Your task to perform on an android device: turn off sleep mode Image 0: 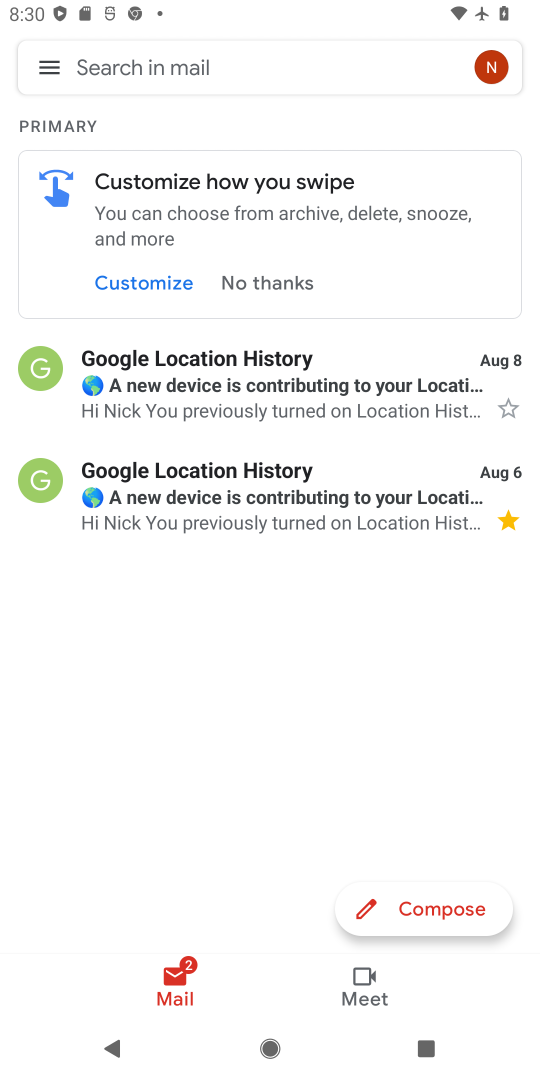
Step 0: press home button
Your task to perform on an android device: turn off sleep mode Image 1: 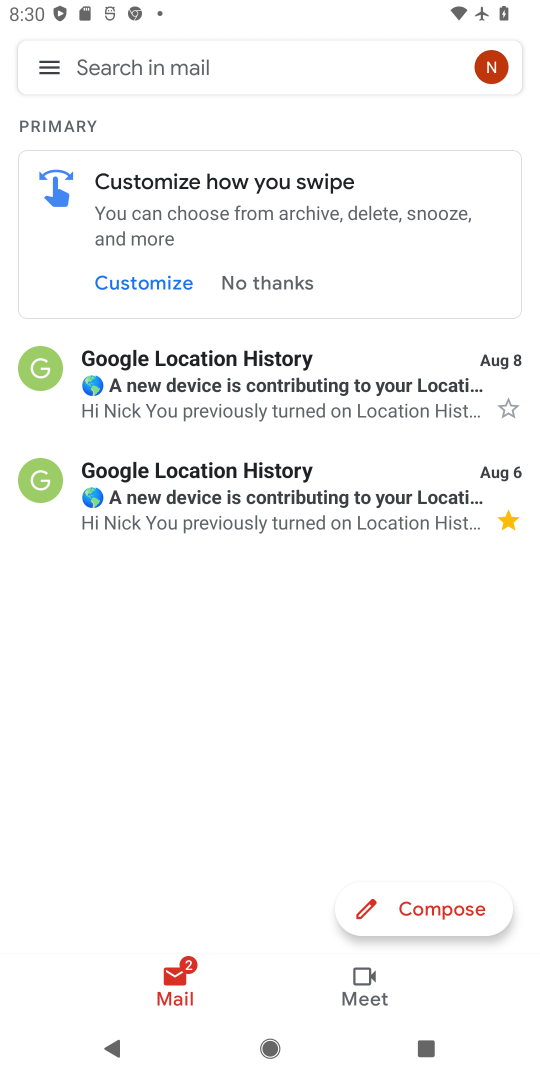
Step 1: press home button
Your task to perform on an android device: turn off sleep mode Image 2: 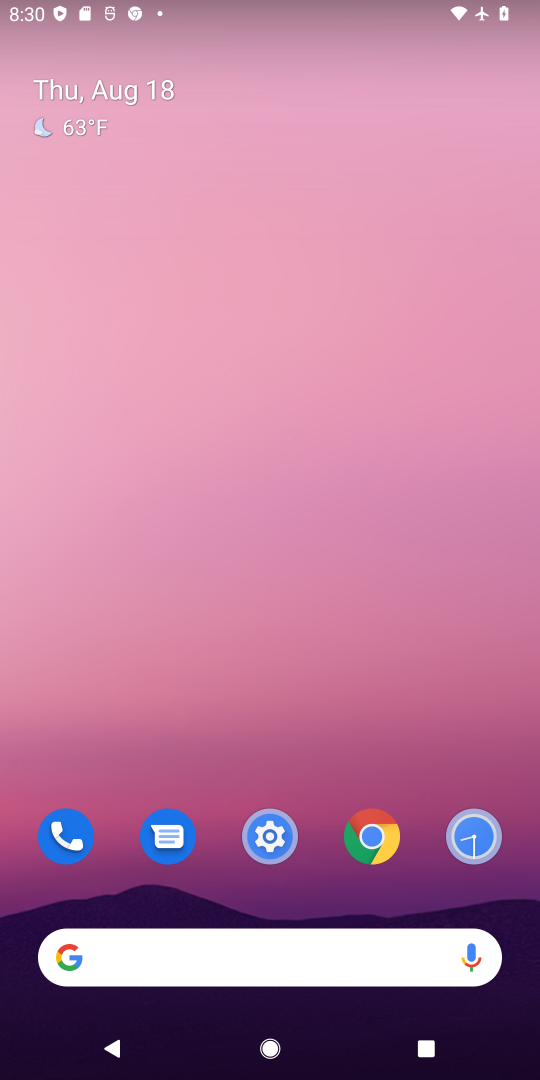
Step 2: drag from (325, 739) to (352, 12)
Your task to perform on an android device: turn off sleep mode Image 3: 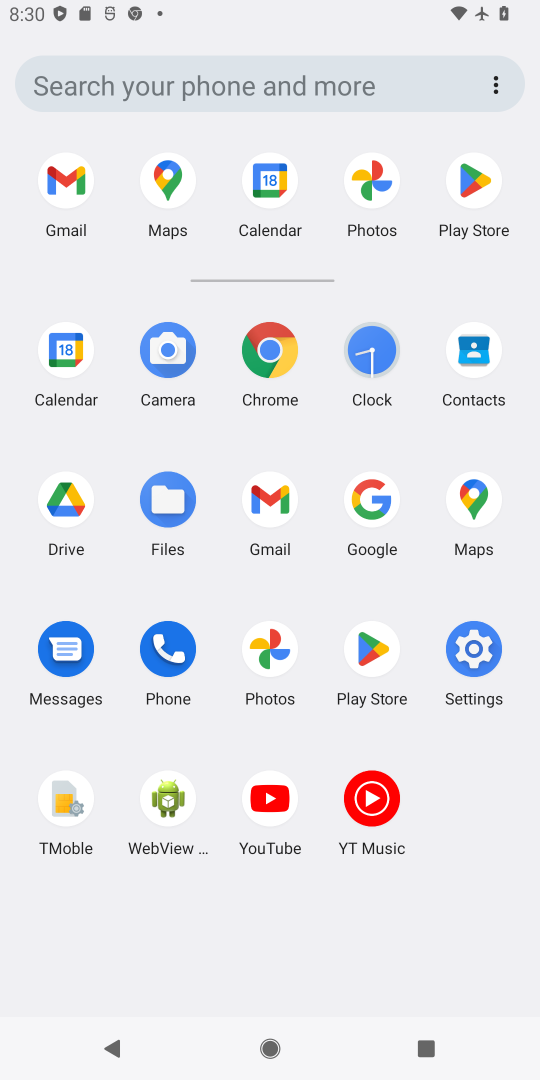
Step 3: click (477, 659)
Your task to perform on an android device: turn off sleep mode Image 4: 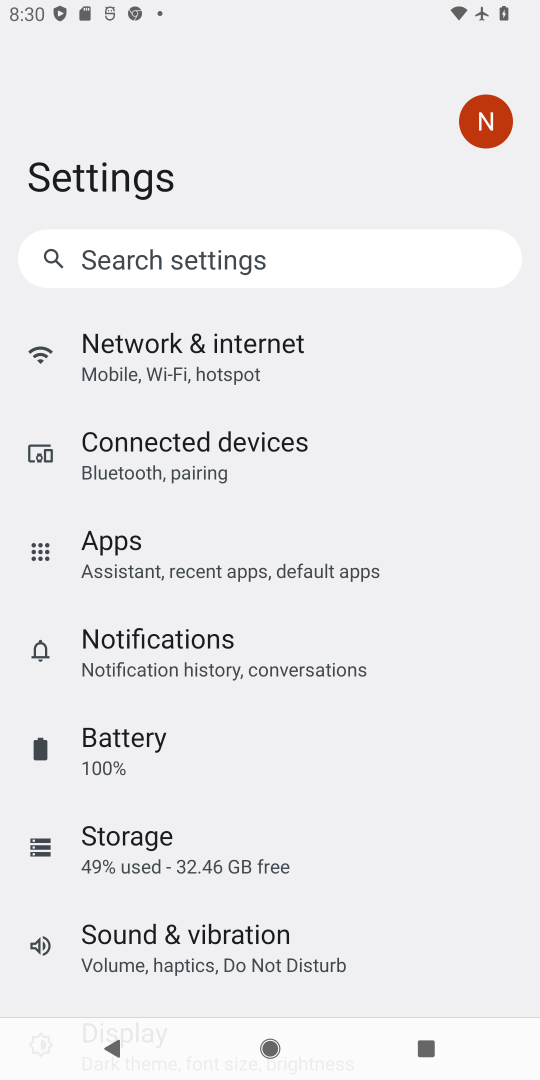
Step 4: click (237, 745)
Your task to perform on an android device: turn off sleep mode Image 5: 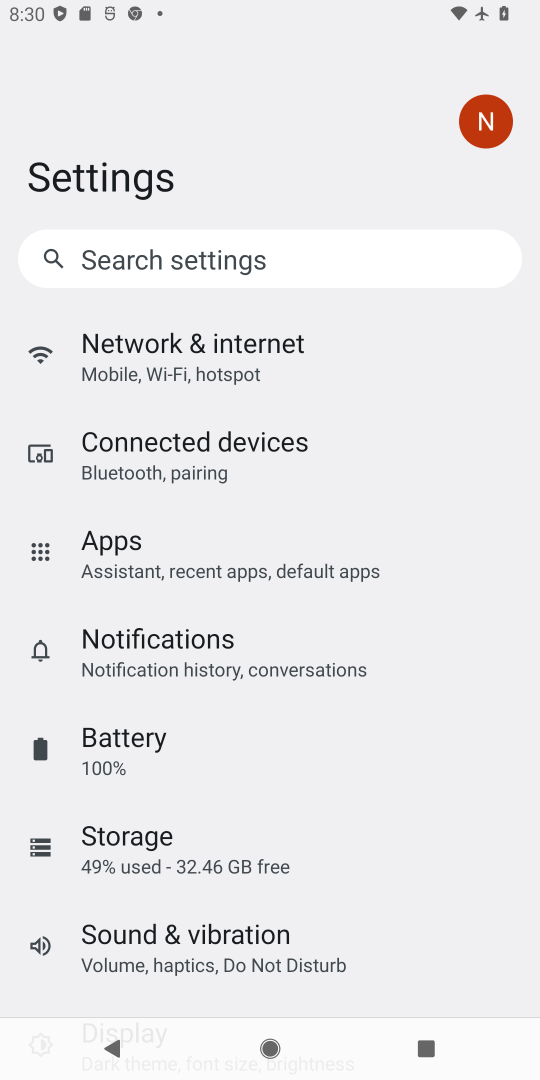
Step 5: drag from (295, 562) to (334, 191)
Your task to perform on an android device: turn off sleep mode Image 6: 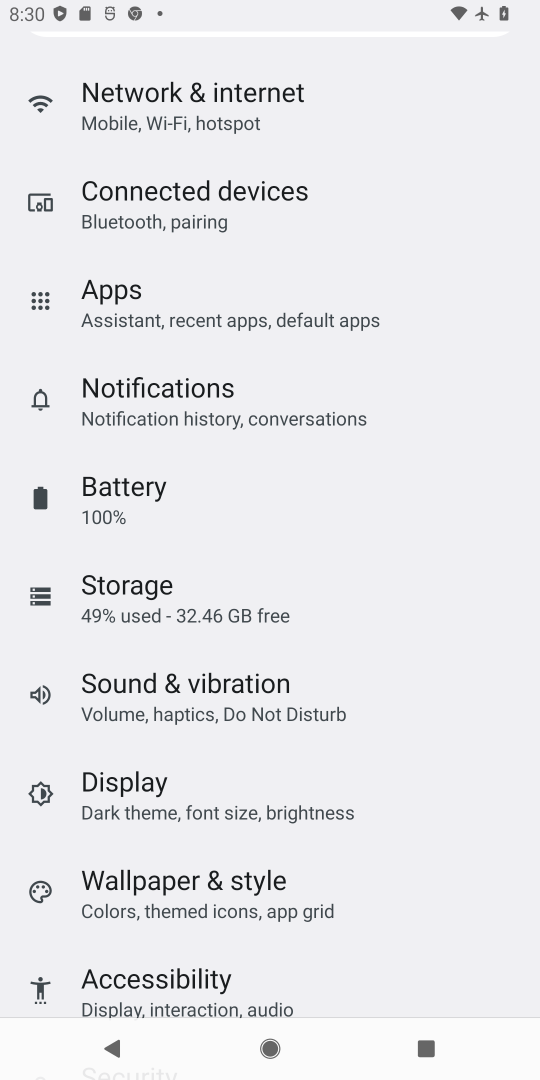
Step 6: click (220, 802)
Your task to perform on an android device: turn off sleep mode Image 7: 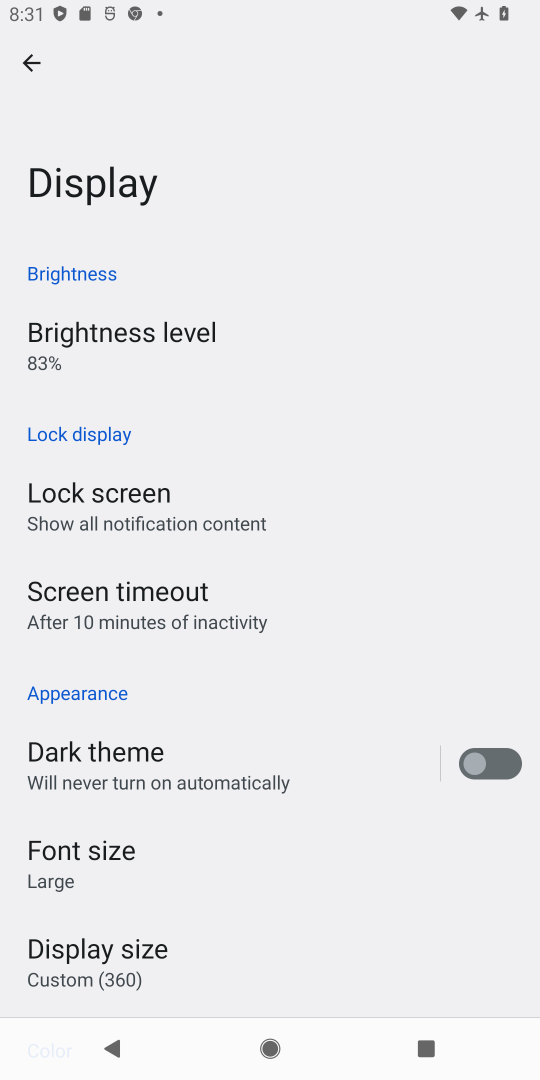
Step 7: click (246, 627)
Your task to perform on an android device: turn off sleep mode Image 8: 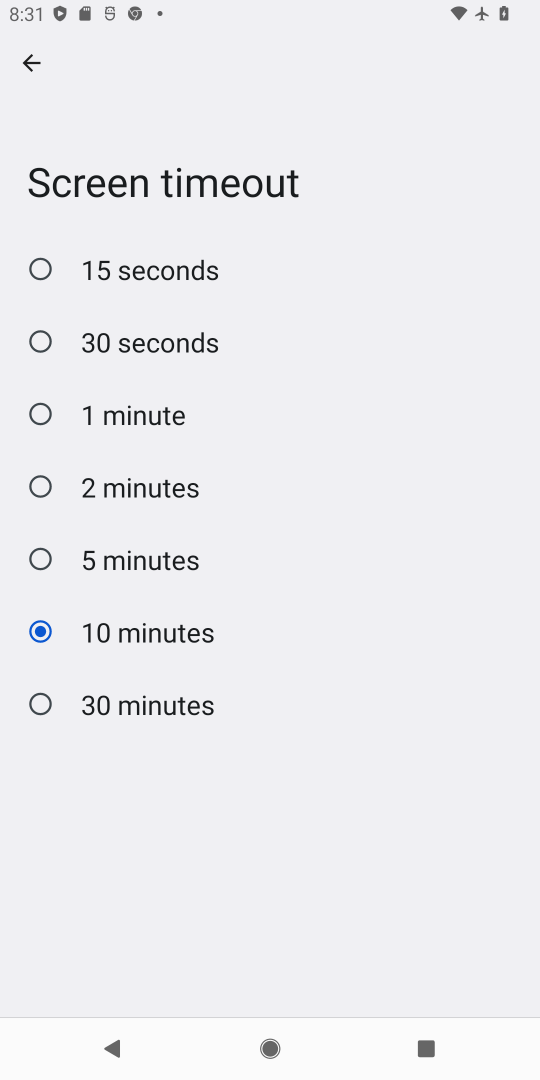
Step 8: task complete